Your task to perform on an android device: turn on the 24-hour format for clock Image 0: 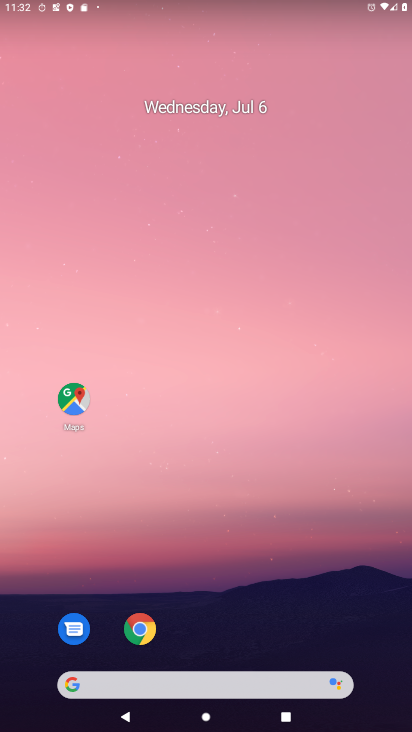
Step 0: drag from (201, 625) to (255, 62)
Your task to perform on an android device: turn on the 24-hour format for clock Image 1: 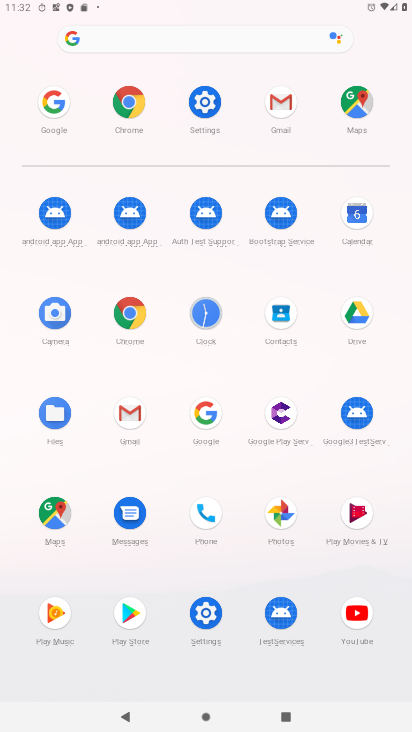
Step 1: click (203, 312)
Your task to perform on an android device: turn on the 24-hour format for clock Image 2: 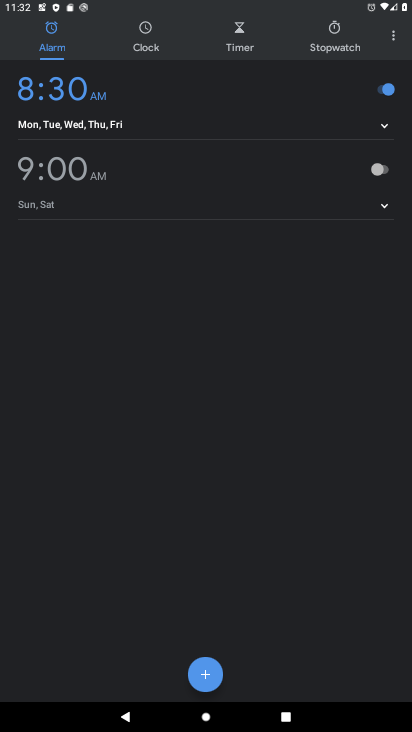
Step 2: click (388, 38)
Your task to perform on an android device: turn on the 24-hour format for clock Image 3: 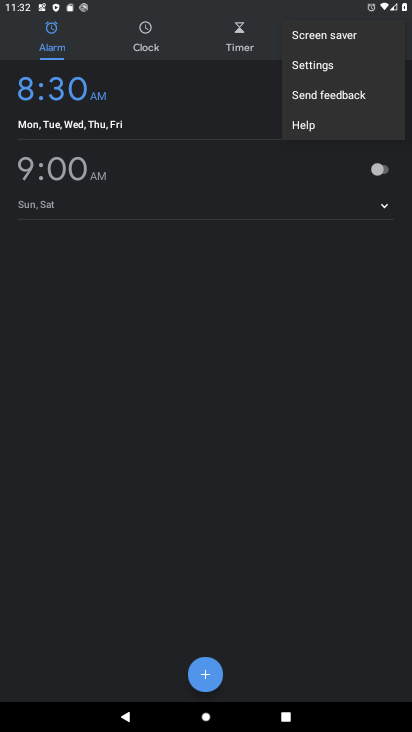
Step 3: click (312, 64)
Your task to perform on an android device: turn on the 24-hour format for clock Image 4: 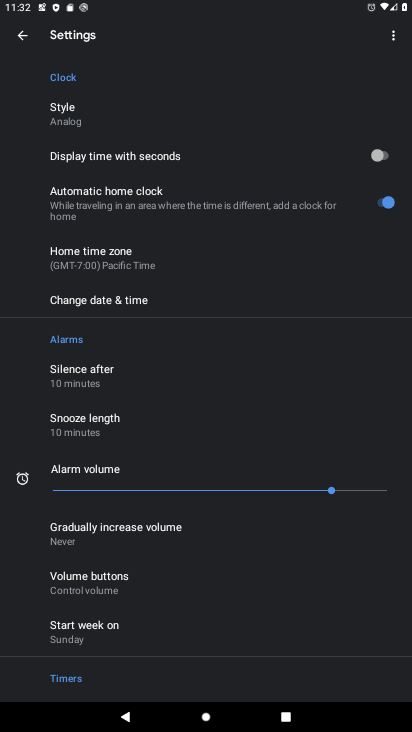
Step 4: drag from (165, 615) to (179, 462)
Your task to perform on an android device: turn on the 24-hour format for clock Image 5: 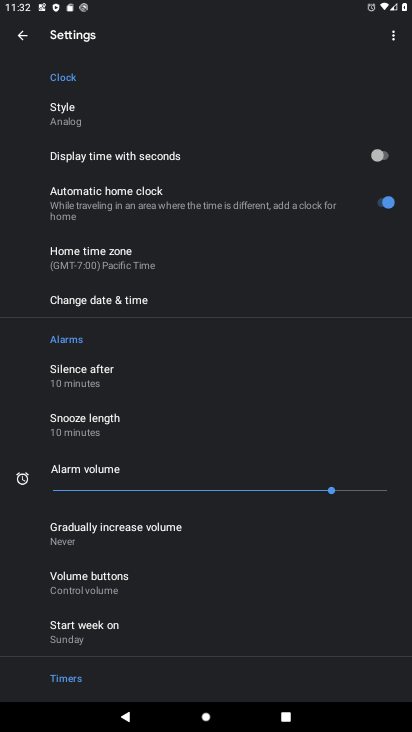
Step 5: click (126, 301)
Your task to perform on an android device: turn on the 24-hour format for clock Image 6: 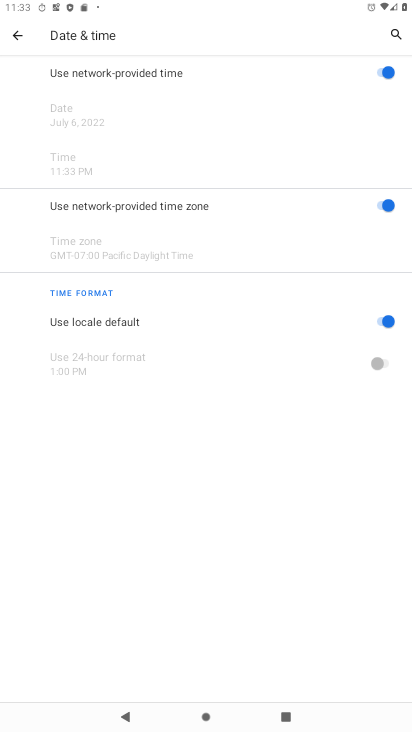
Step 6: click (385, 320)
Your task to perform on an android device: turn on the 24-hour format for clock Image 7: 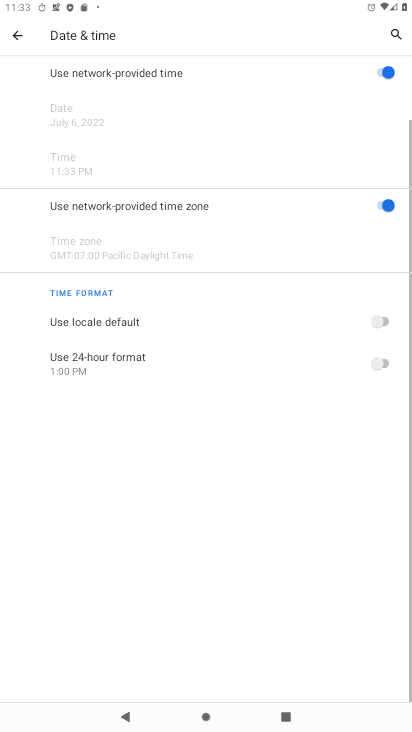
Step 7: click (383, 363)
Your task to perform on an android device: turn on the 24-hour format for clock Image 8: 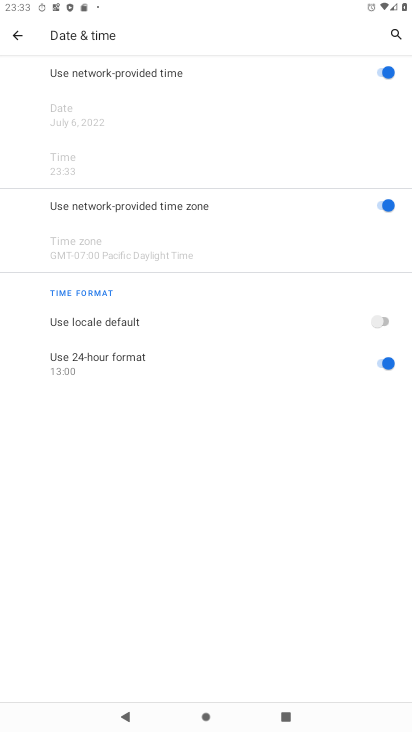
Step 8: task complete